Your task to perform on an android device: Go to Yahoo.com Image 0: 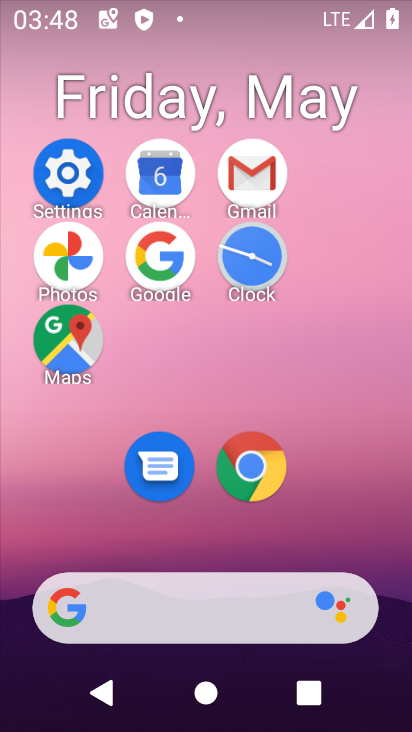
Step 0: click (270, 475)
Your task to perform on an android device: Go to Yahoo.com Image 1: 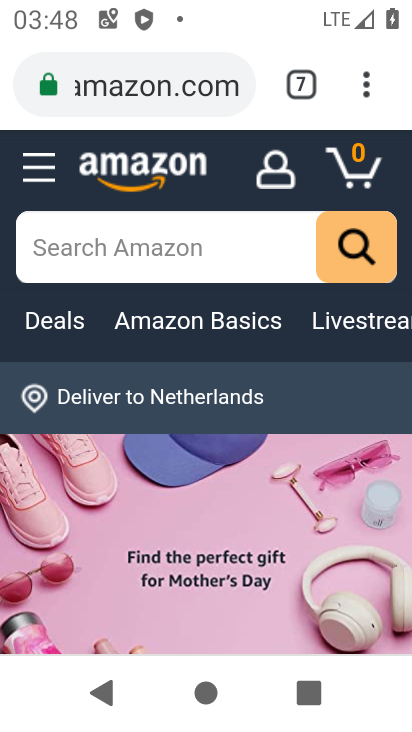
Step 1: click (312, 83)
Your task to perform on an android device: Go to Yahoo.com Image 2: 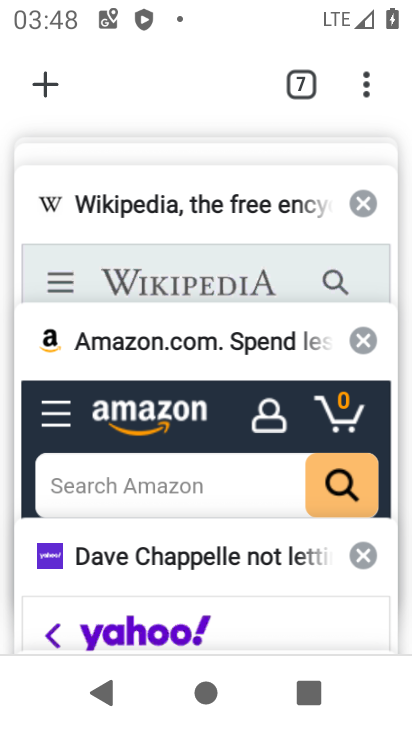
Step 2: click (191, 582)
Your task to perform on an android device: Go to Yahoo.com Image 3: 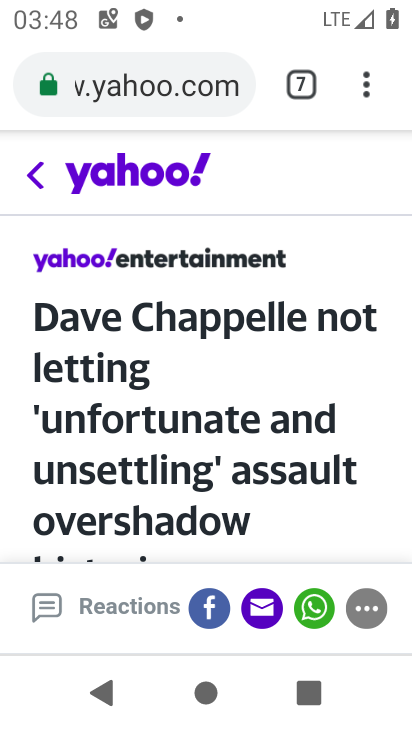
Step 3: task complete